Your task to perform on an android device: open app "Google Duo" (install if not already installed) Image 0: 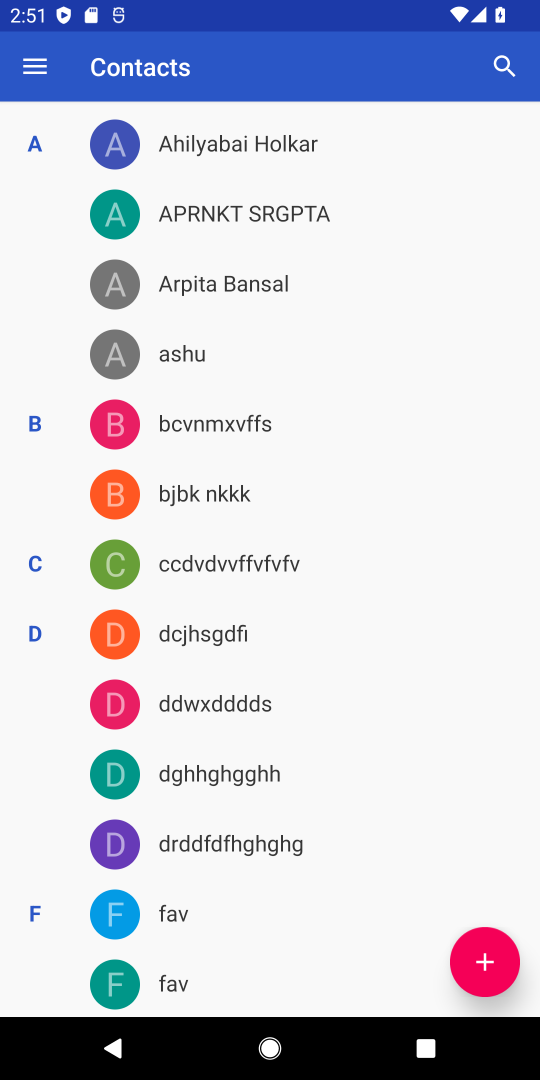
Step 0: press home button
Your task to perform on an android device: open app "Google Duo" (install if not already installed) Image 1: 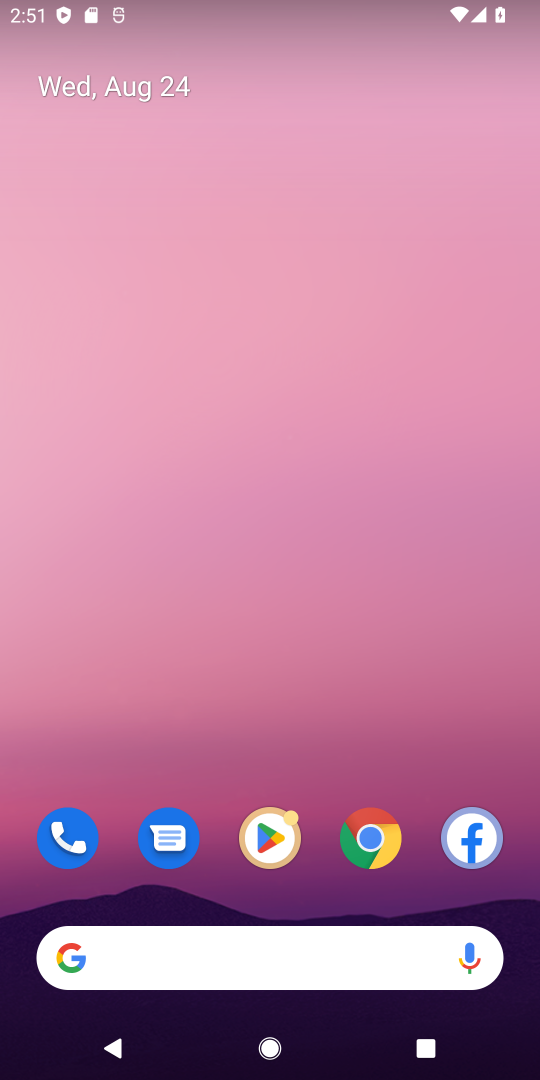
Step 1: drag from (436, 643) to (454, 133)
Your task to perform on an android device: open app "Google Duo" (install if not already installed) Image 2: 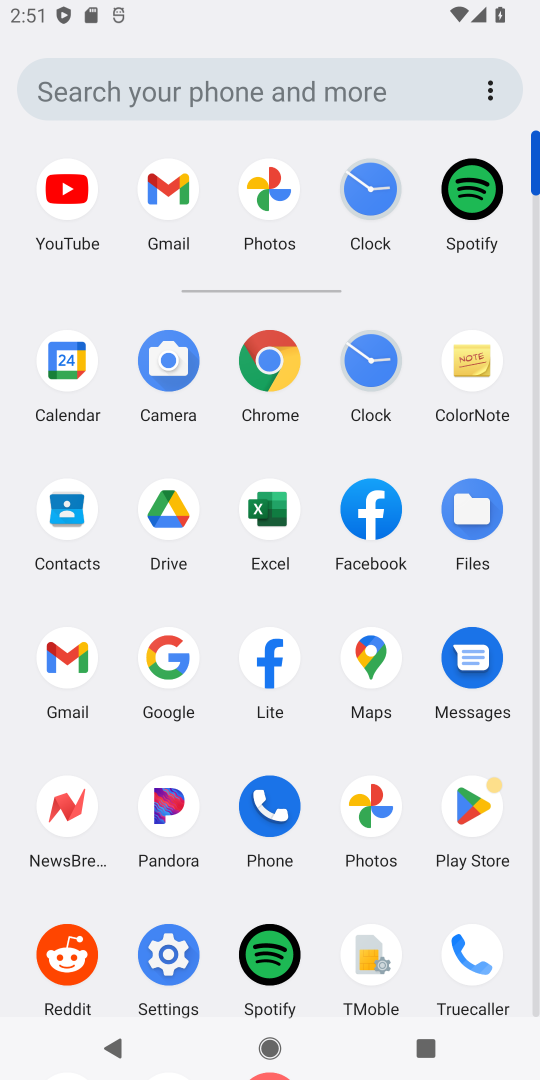
Step 2: click (458, 831)
Your task to perform on an android device: open app "Google Duo" (install if not already installed) Image 3: 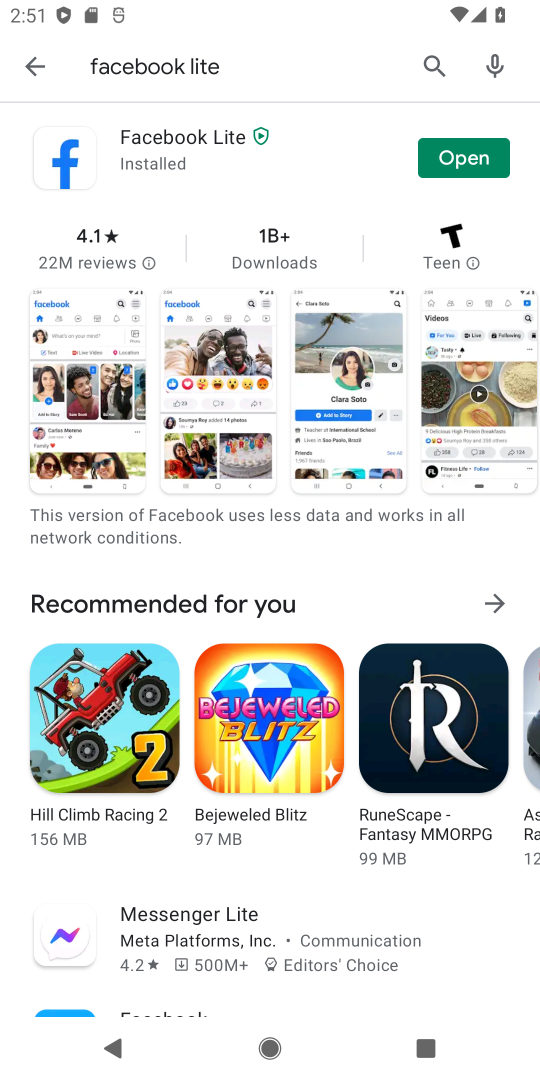
Step 3: press back button
Your task to perform on an android device: open app "Google Duo" (install if not already installed) Image 4: 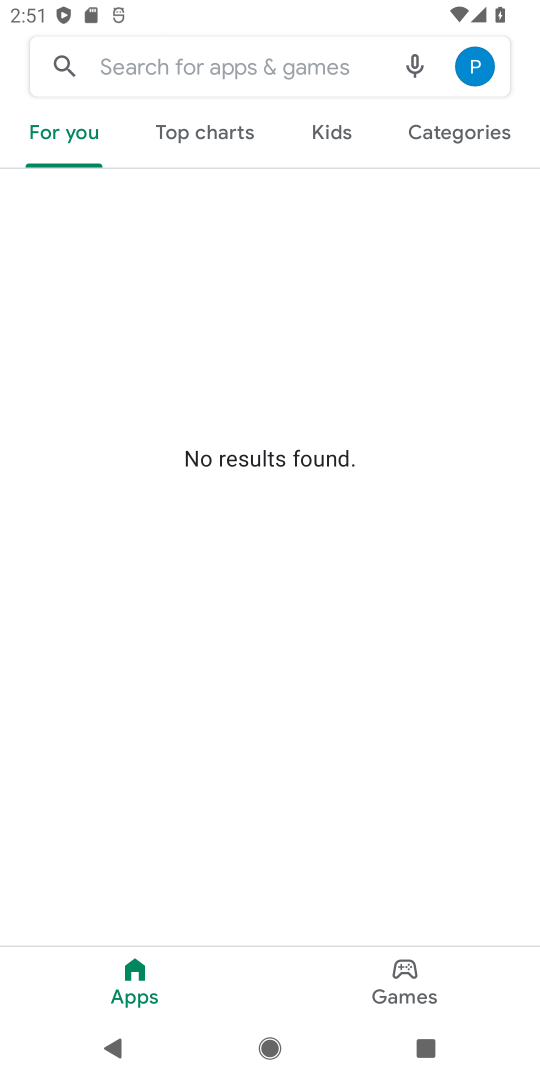
Step 4: click (202, 65)
Your task to perform on an android device: open app "Google Duo" (install if not already installed) Image 5: 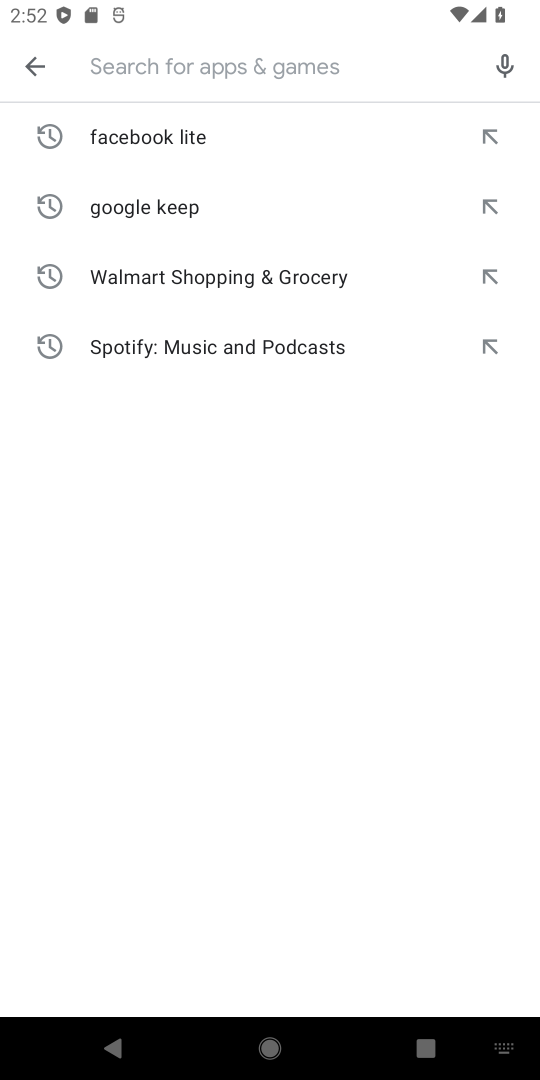
Step 5: type "google duo"
Your task to perform on an android device: open app "Google Duo" (install if not already installed) Image 6: 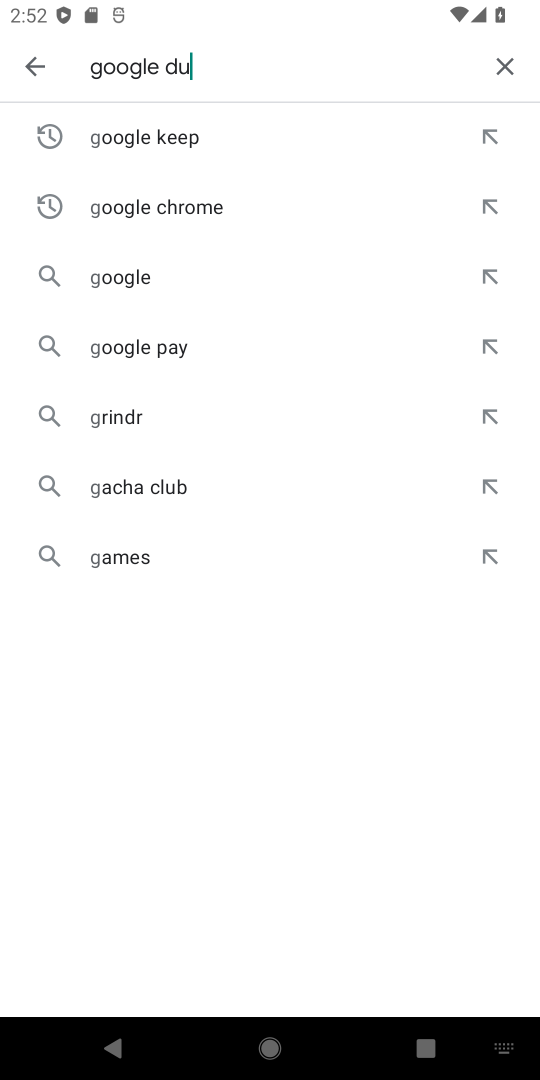
Step 6: press enter
Your task to perform on an android device: open app "Google Duo" (install if not already installed) Image 7: 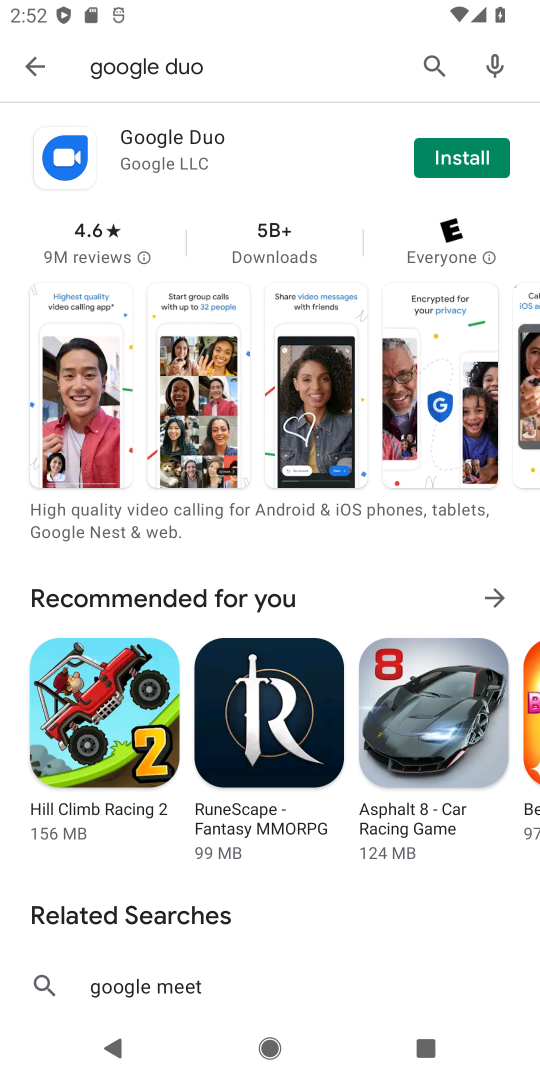
Step 7: click (473, 152)
Your task to perform on an android device: open app "Google Duo" (install if not already installed) Image 8: 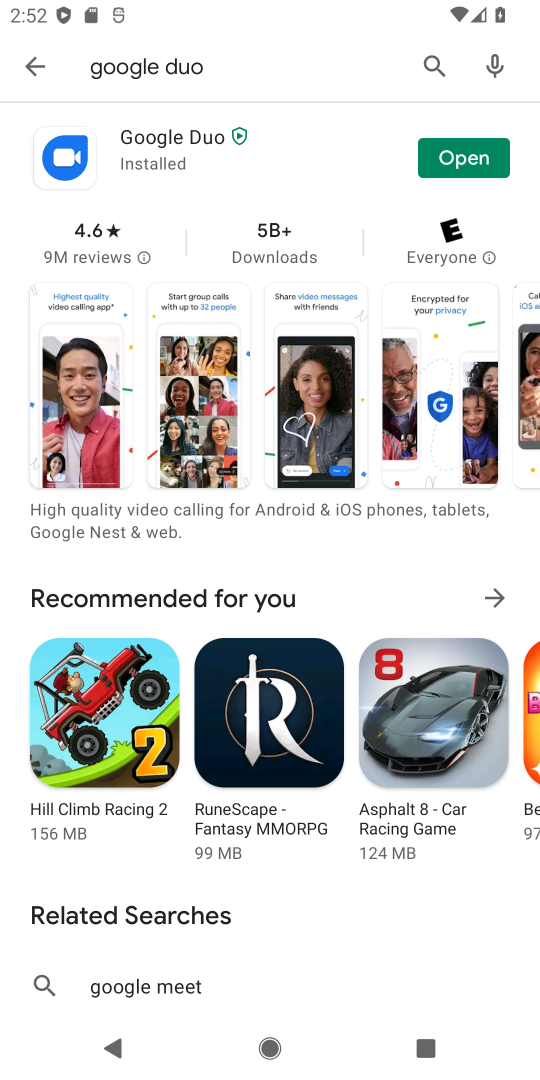
Step 8: click (469, 161)
Your task to perform on an android device: open app "Google Duo" (install if not already installed) Image 9: 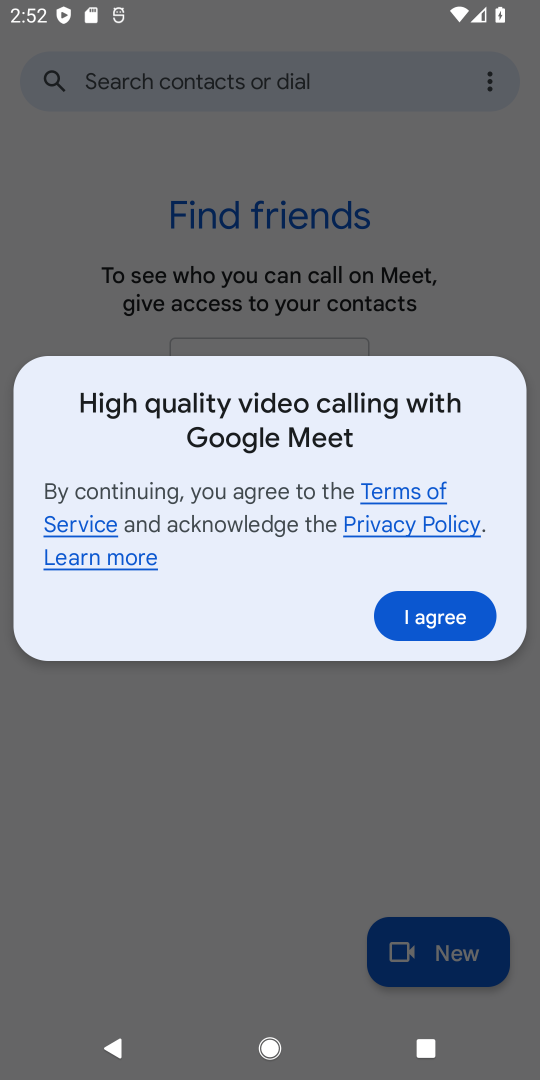
Step 9: task complete